Your task to perform on an android device: turn off notifications in google photos Image 0: 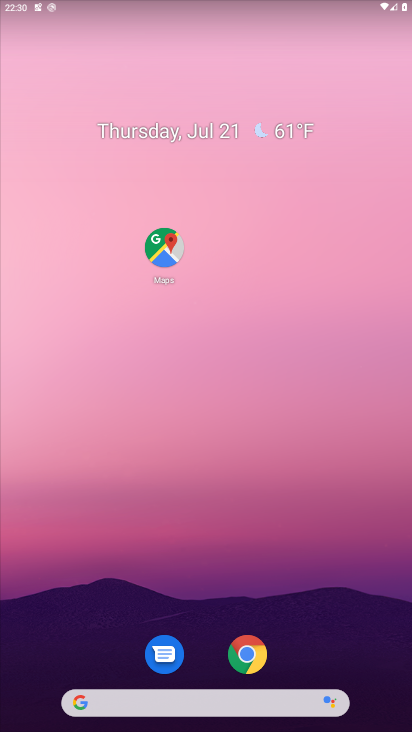
Step 0: click (117, 702)
Your task to perform on an android device: turn off notifications in google photos Image 1: 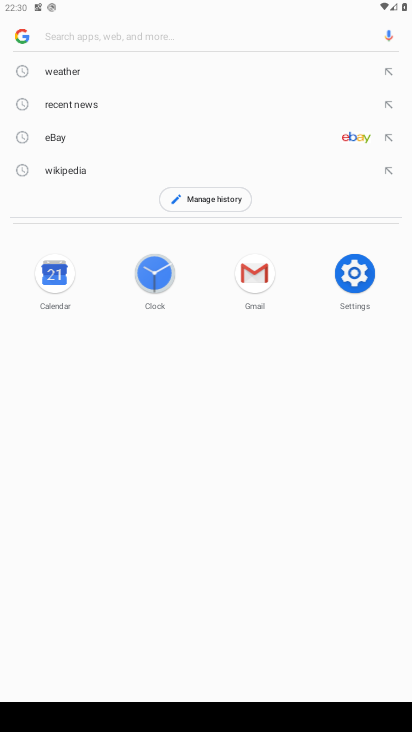
Step 1: press home button
Your task to perform on an android device: turn off notifications in google photos Image 2: 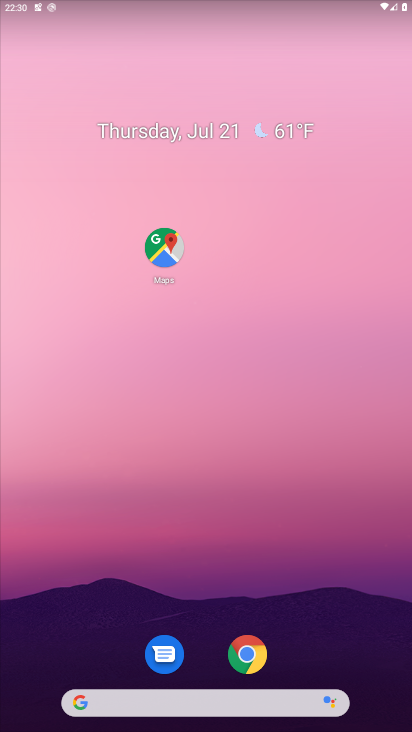
Step 2: drag from (82, 597) to (234, 70)
Your task to perform on an android device: turn off notifications in google photos Image 3: 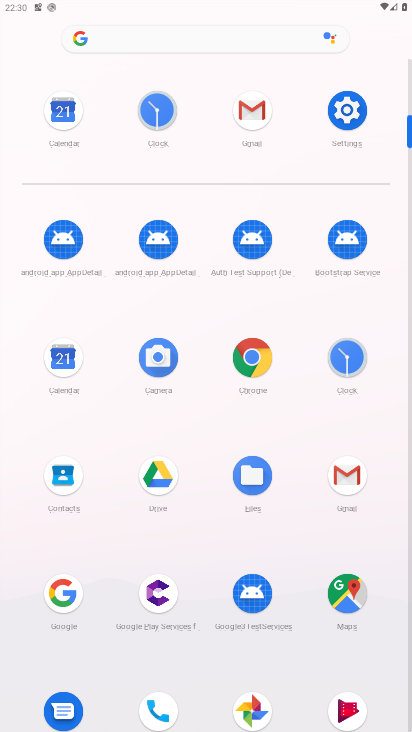
Step 3: click (265, 710)
Your task to perform on an android device: turn off notifications in google photos Image 4: 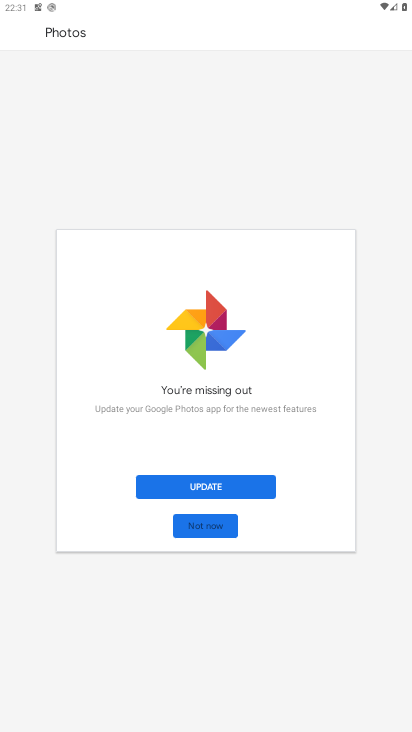
Step 4: click (178, 521)
Your task to perform on an android device: turn off notifications in google photos Image 5: 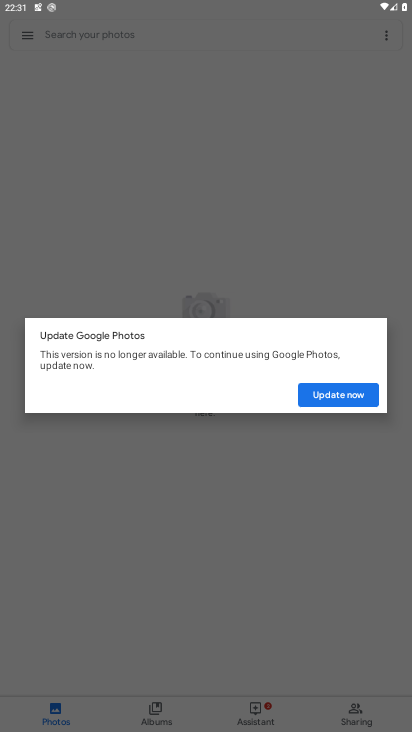
Step 5: click (325, 397)
Your task to perform on an android device: turn off notifications in google photos Image 6: 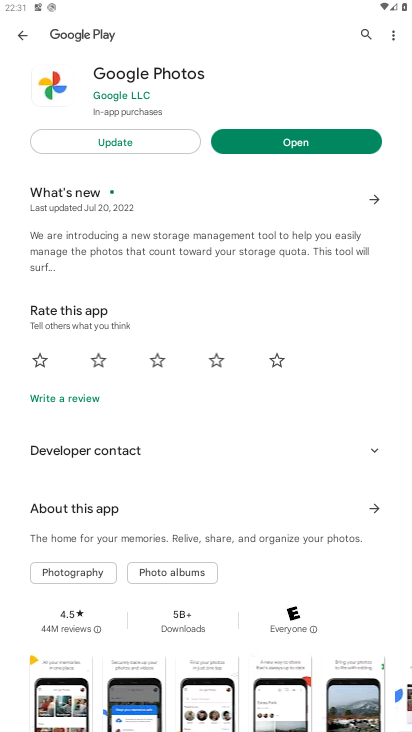
Step 6: click (249, 146)
Your task to perform on an android device: turn off notifications in google photos Image 7: 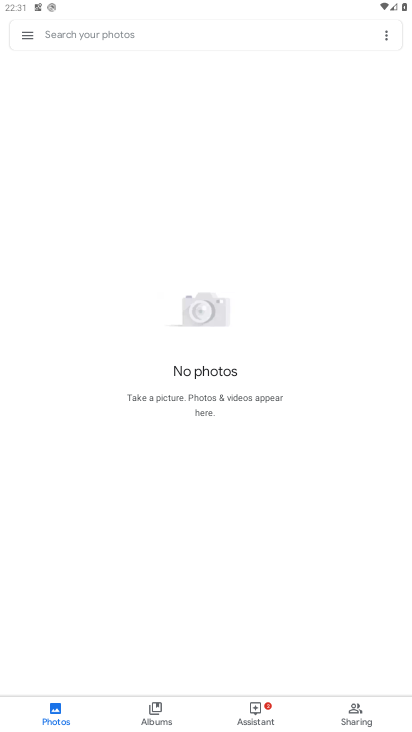
Step 7: click (29, 34)
Your task to perform on an android device: turn off notifications in google photos Image 8: 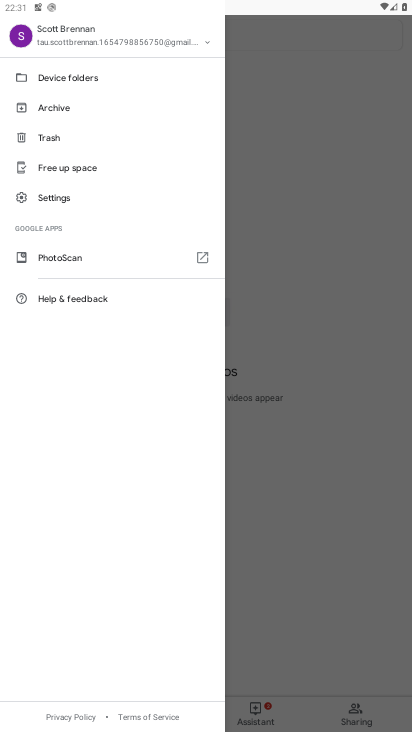
Step 8: click (70, 190)
Your task to perform on an android device: turn off notifications in google photos Image 9: 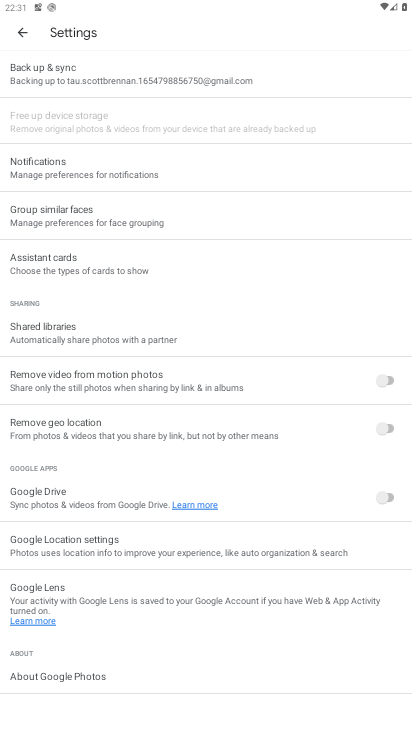
Step 9: click (94, 178)
Your task to perform on an android device: turn off notifications in google photos Image 10: 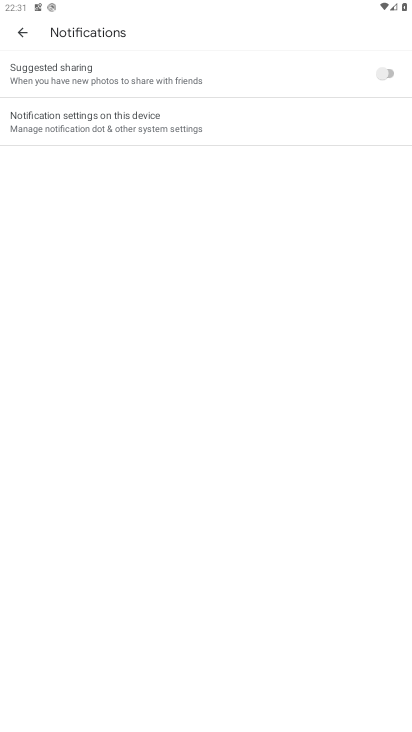
Step 10: click (130, 113)
Your task to perform on an android device: turn off notifications in google photos Image 11: 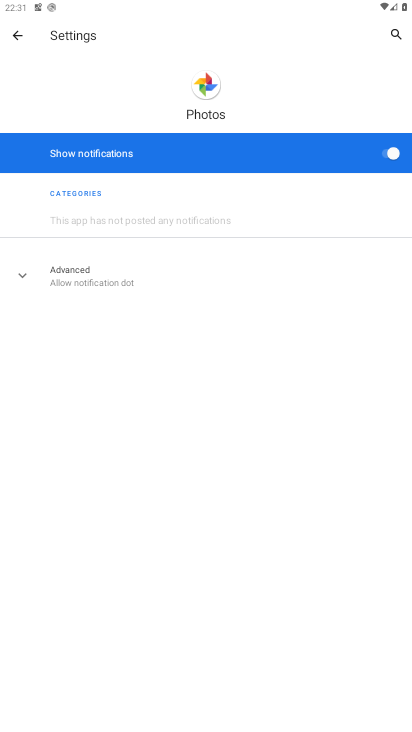
Step 11: click (390, 152)
Your task to perform on an android device: turn off notifications in google photos Image 12: 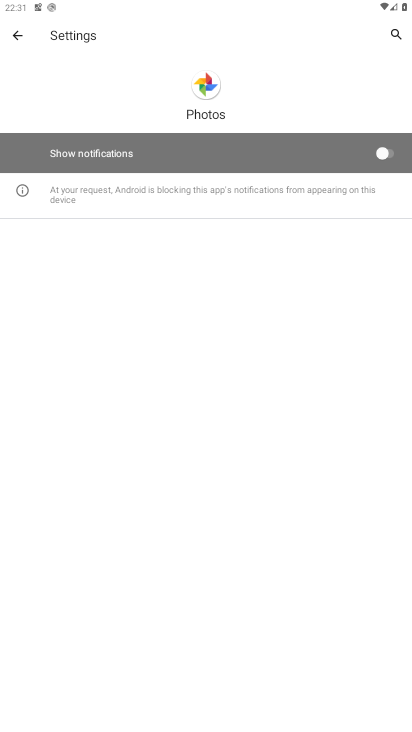
Step 12: task complete